Your task to perform on an android device: Search for seafood restaurants on Google Maps Image 0: 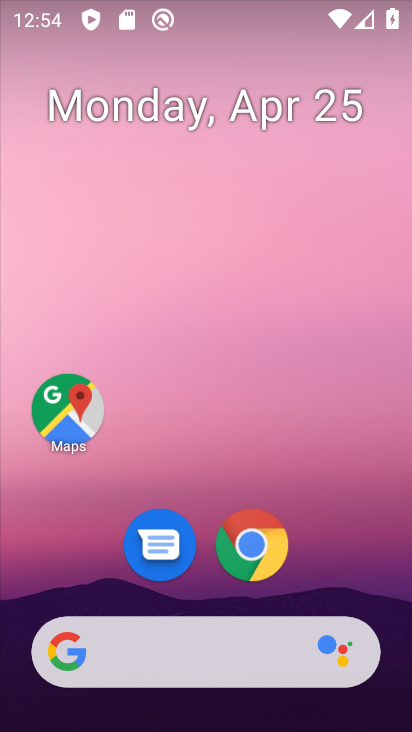
Step 0: click (83, 406)
Your task to perform on an android device: Search for seafood restaurants on Google Maps Image 1: 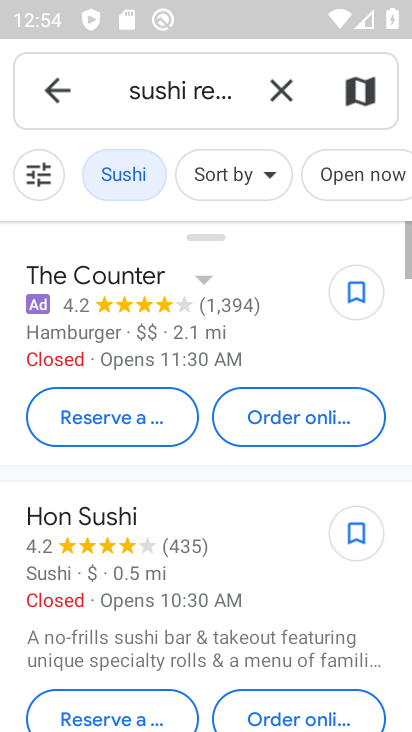
Step 1: click (292, 91)
Your task to perform on an android device: Search for seafood restaurants on Google Maps Image 2: 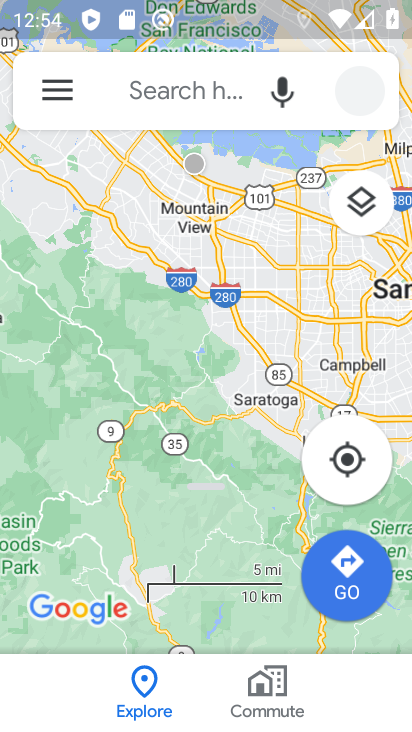
Step 2: click (168, 93)
Your task to perform on an android device: Search for seafood restaurants on Google Maps Image 3: 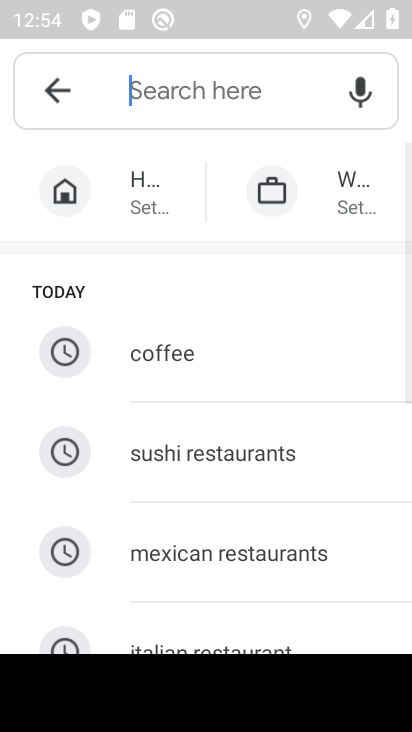
Step 3: drag from (158, 602) to (164, 273)
Your task to perform on an android device: Search for seafood restaurants on Google Maps Image 4: 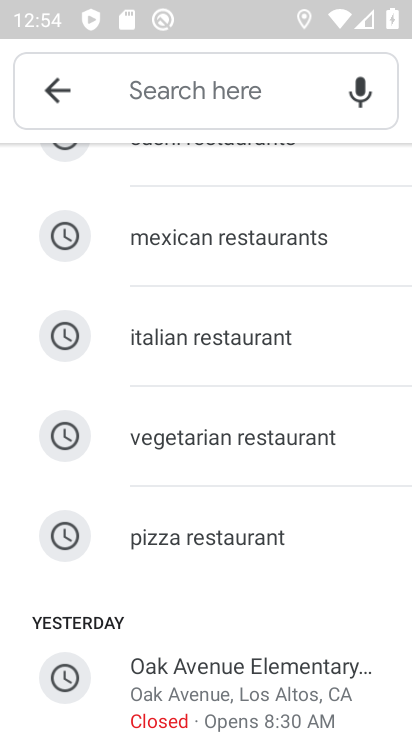
Step 4: click (144, 92)
Your task to perform on an android device: Search for seafood restaurants on Google Maps Image 5: 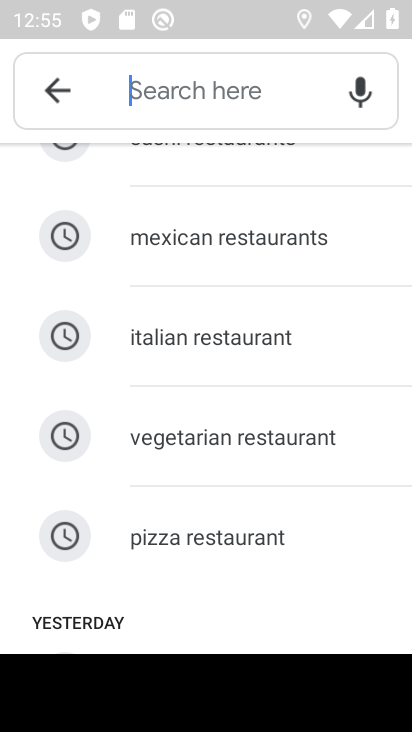
Step 5: type "seafood restaurants"
Your task to perform on an android device: Search for seafood restaurants on Google Maps Image 6: 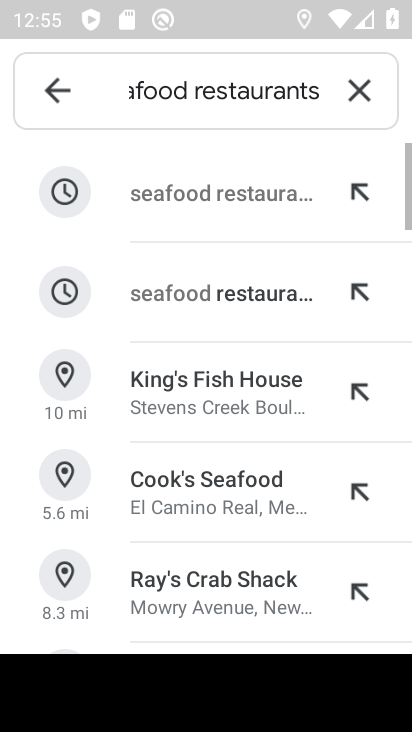
Step 6: click (174, 201)
Your task to perform on an android device: Search for seafood restaurants on Google Maps Image 7: 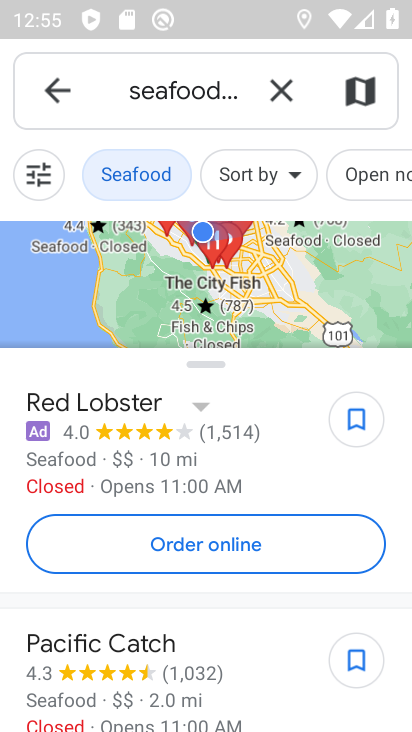
Step 7: task complete